Your task to perform on an android device: toggle pop-ups in chrome Image 0: 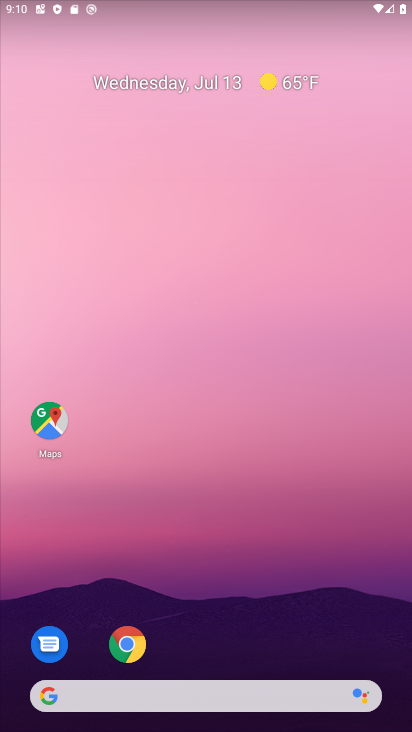
Step 0: drag from (260, 535) to (212, 0)
Your task to perform on an android device: toggle pop-ups in chrome Image 1: 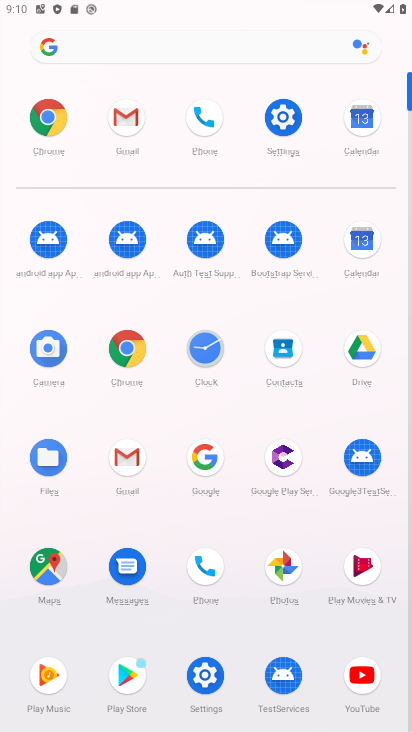
Step 1: click (47, 118)
Your task to perform on an android device: toggle pop-ups in chrome Image 2: 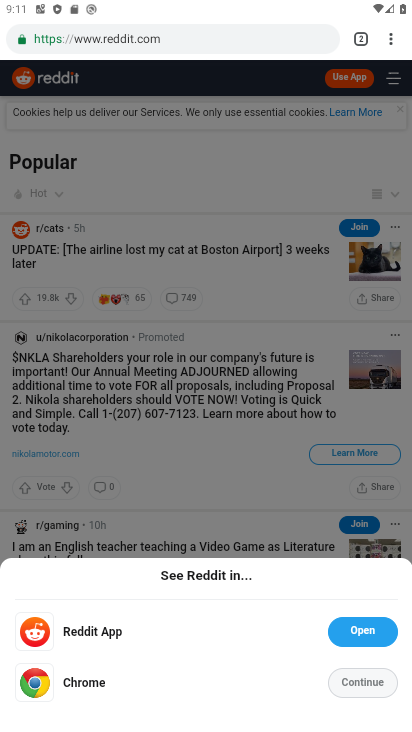
Step 2: drag from (389, 39) to (257, 469)
Your task to perform on an android device: toggle pop-ups in chrome Image 3: 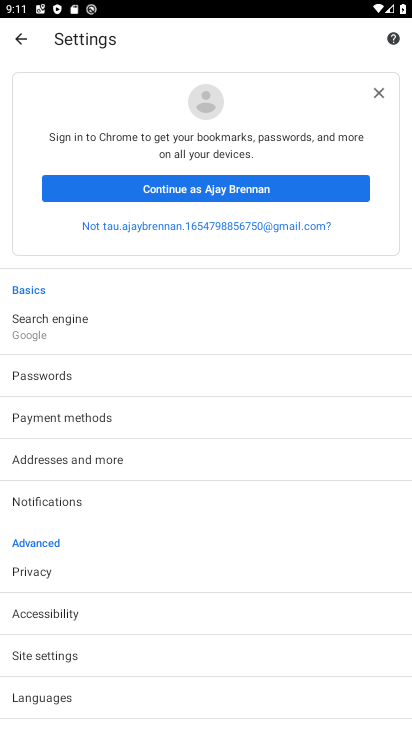
Step 3: drag from (103, 670) to (150, 336)
Your task to perform on an android device: toggle pop-ups in chrome Image 4: 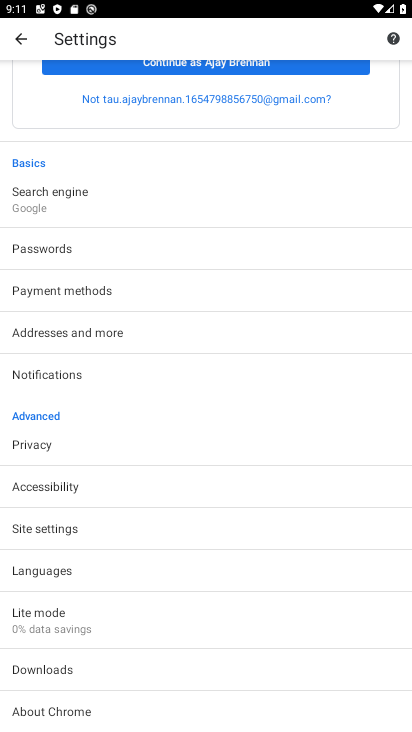
Step 4: click (71, 529)
Your task to perform on an android device: toggle pop-ups in chrome Image 5: 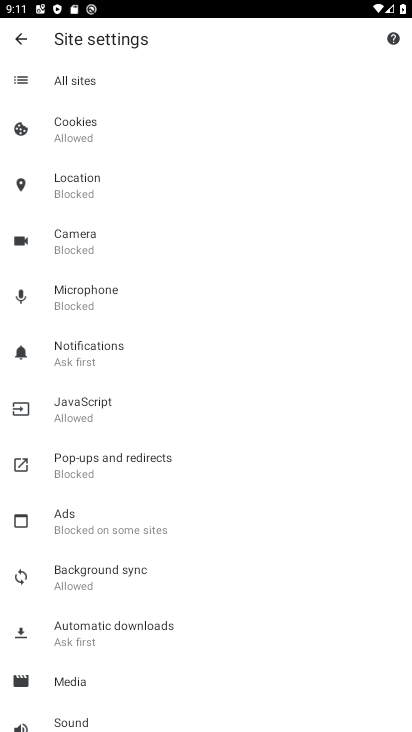
Step 5: click (104, 469)
Your task to perform on an android device: toggle pop-ups in chrome Image 6: 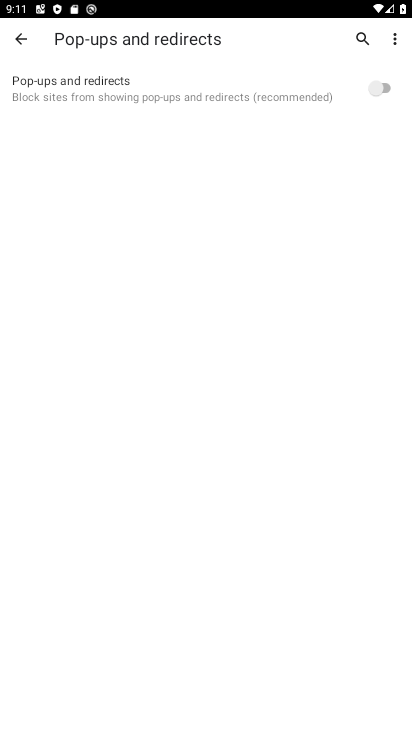
Step 6: click (375, 89)
Your task to perform on an android device: toggle pop-ups in chrome Image 7: 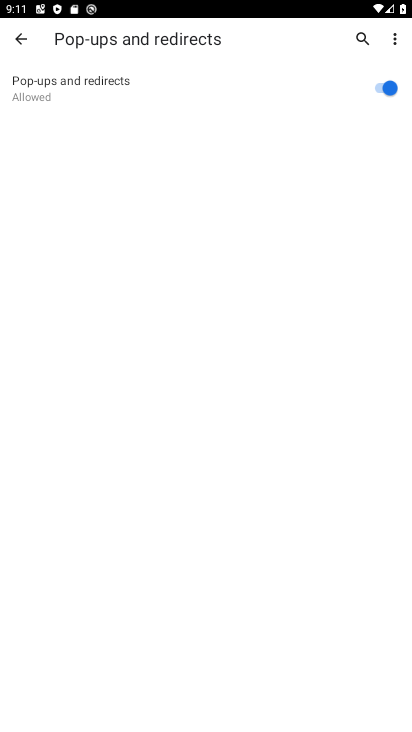
Step 7: task complete